Your task to perform on an android device: What's the weather going to be tomorrow? Image 0: 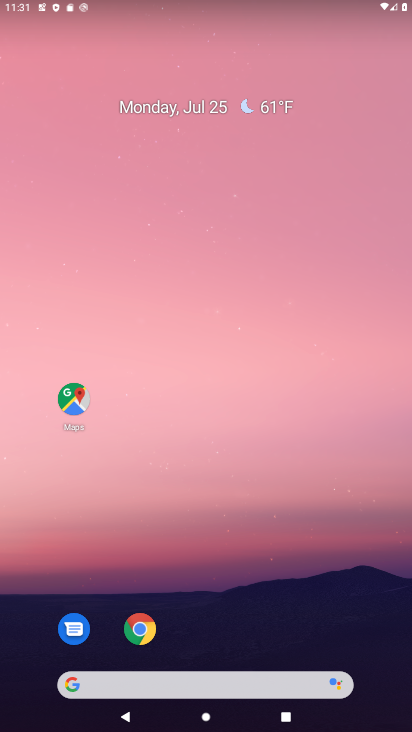
Step 0: drag from (203, 630) to (203, 141)
Your task to perform on an android device: What's the weather going to be tomorrow? Image 1: 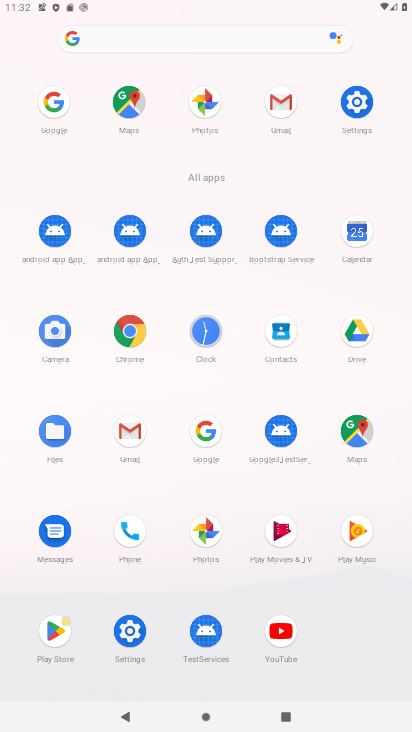
Step 1: click (203, 446)
Your task to perform on an android device: What's the weather going to be tomorrow? Image 2: 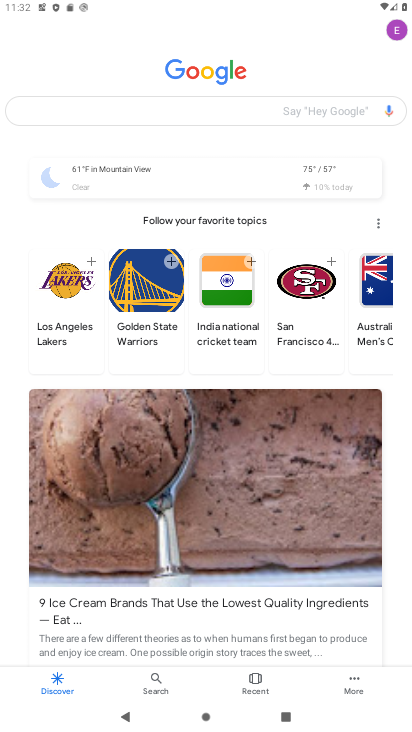
Step 2: drag from (169, 112) to (119, 112)
Your task to perform on an android device: What's the weather going to be tomorrow? Image 3: 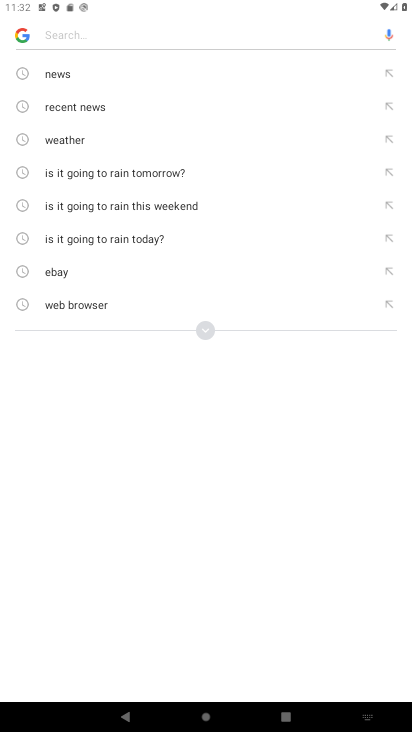
Step 3: press back button
Your task to perform on an android device: What's the weather going to be tomorrow? Image 4: 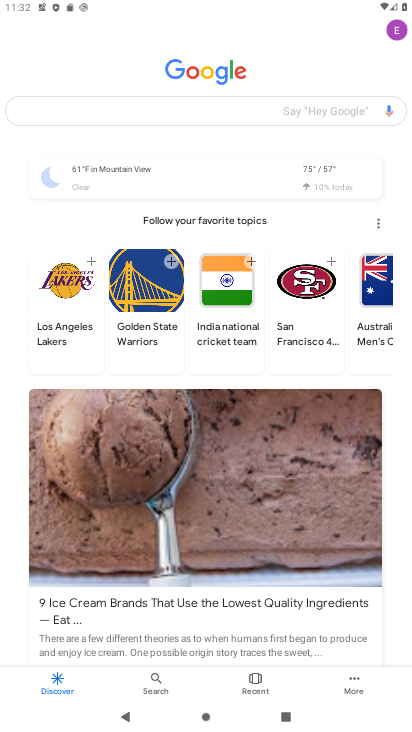
Step 4: click (121, 168)
Your task to perform on an android device: What's the weather going to be tomorrow? Image 5: 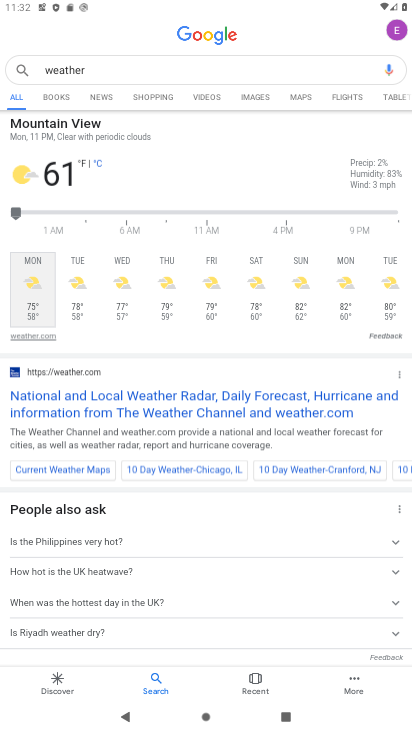
Step 5: task complete